Your task to perform on an android device: turn off location Image 0: 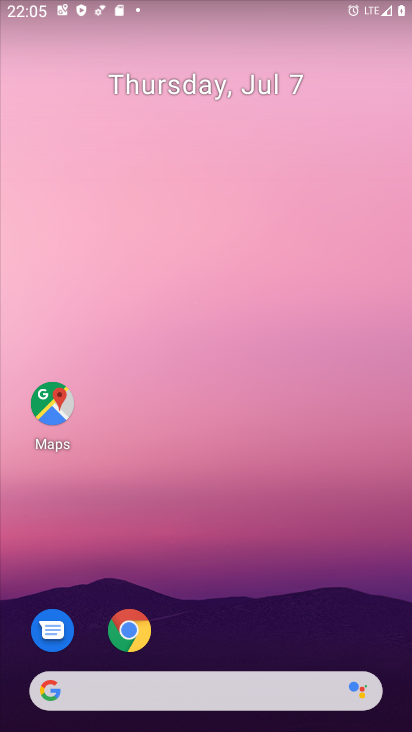
Step 0: drag from (202, 633) to (263, 144)
Your task to perform on an android device: turn off location Image 1: 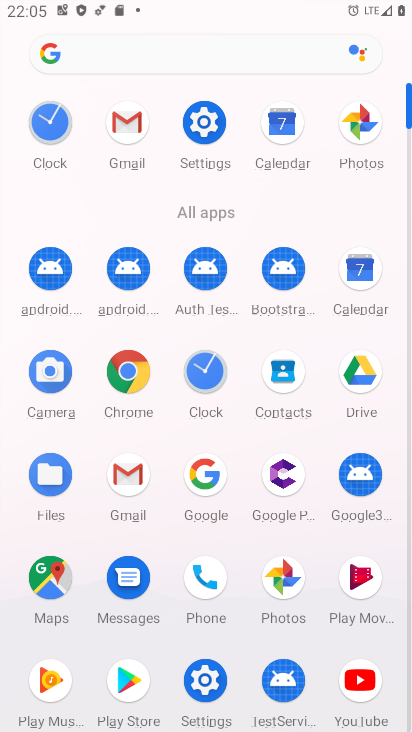
Step 1: click (205, 126)
Your task to perform on an android device: turn off location Image 2: 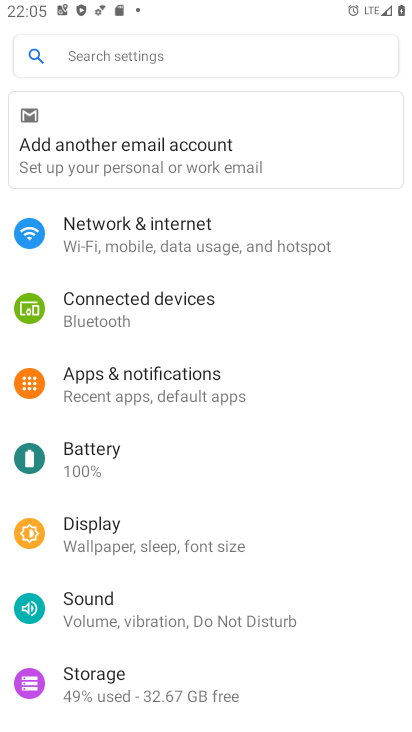
Step 2: drag from (161, 627) to (227, 226)
Your task to perform on an android device: turn off location Image 3: 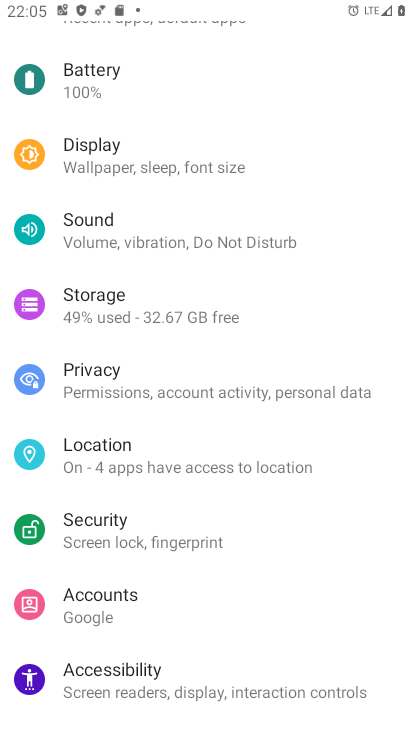
Step 3: click (114, 445)
Your task to perform on an android device: turn off location Image 4: 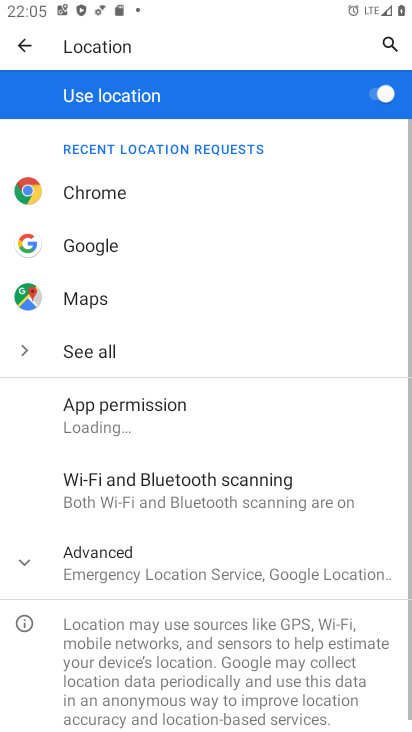
Step 4: drag from (227, 620) to (227, 355)
Your task to perform on an android device: turn off location Image 5: 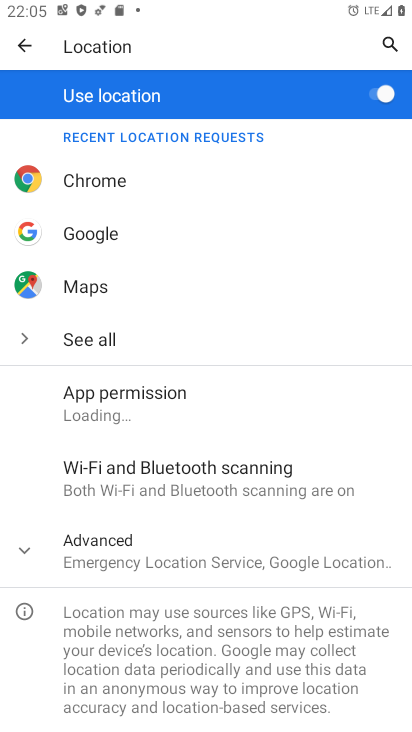
Step 5: drag from (196, 599) to (211, 290)
Your task to perform on an android device: turn off location Image 6: 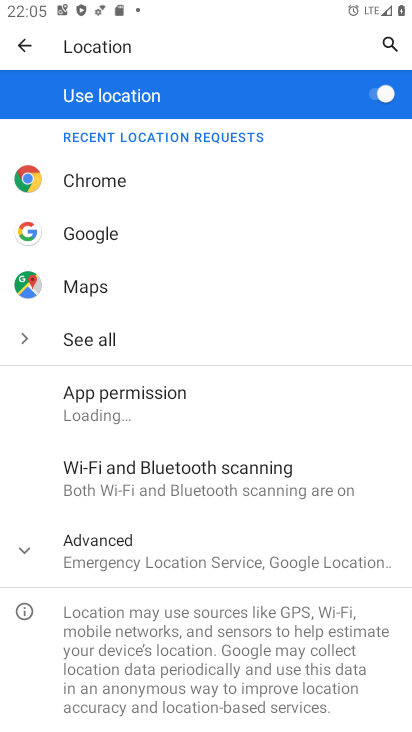
Step 6: click (153, 551)
Your task to perform on an android device: turn off location Image 7: 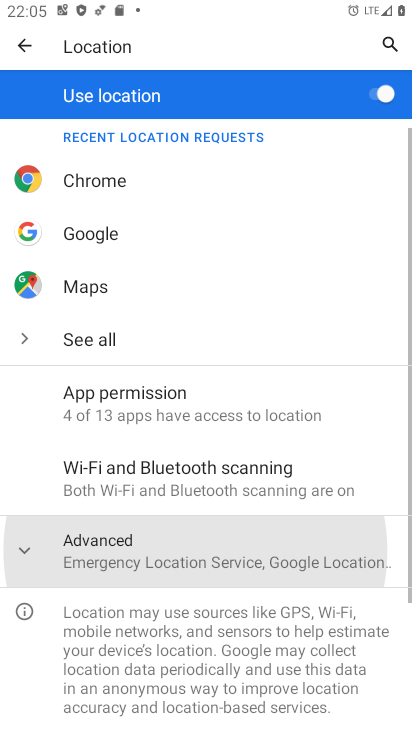
Step 7: click (153, 551)
Your task to perform on an android device: turn off location Image 8: 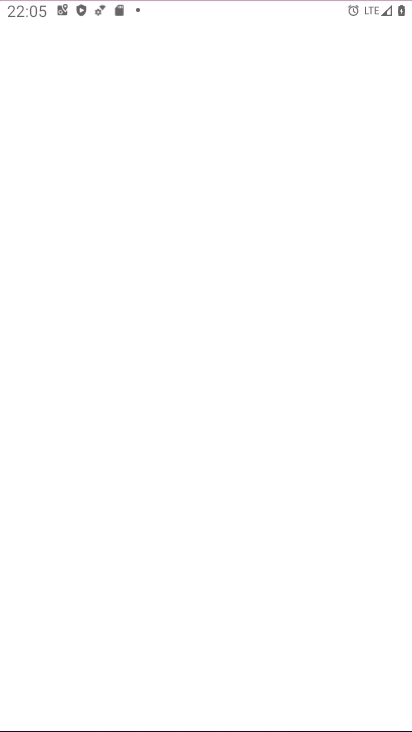
Step 8: drag from (160, 526) to (185, 189)
Your task to perform on an android device: turn off location Image 9: 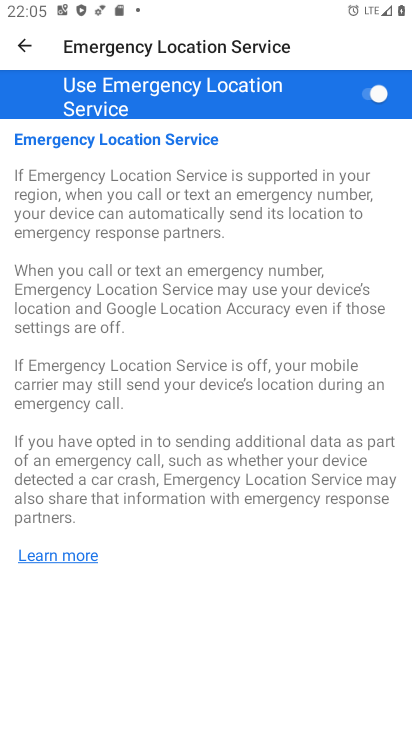
Step 9: drag from (225, 235) to (306, 679)
Your task to perform on an android device: turn off location Image 10: 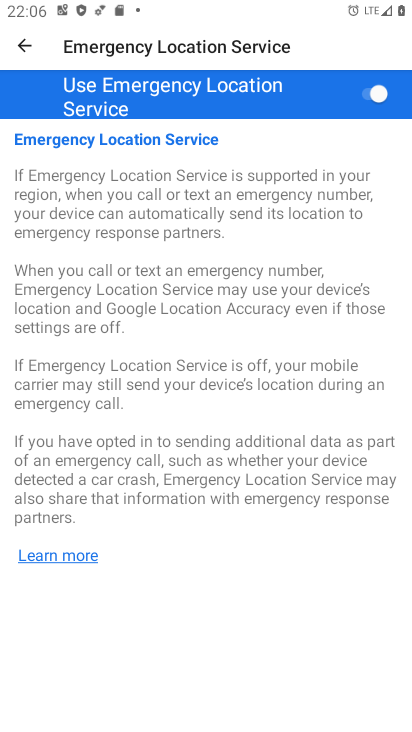
Step 10: click (21, 43)
Your task to perform on an android device: turn off location Image 11: 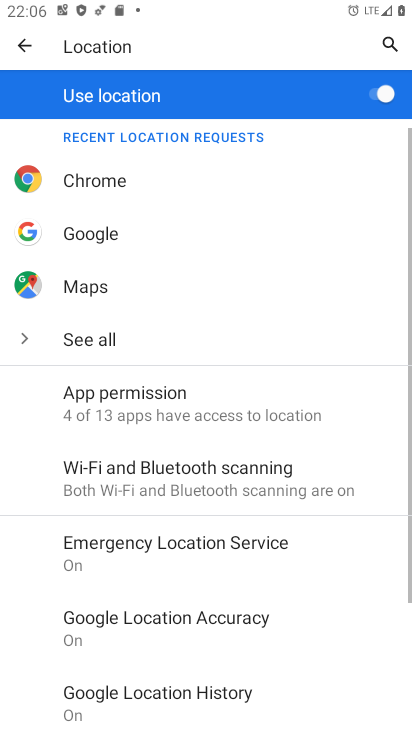
Step 11: click (384, 92)
Your task to perform on an android device: turn off location Image 12: 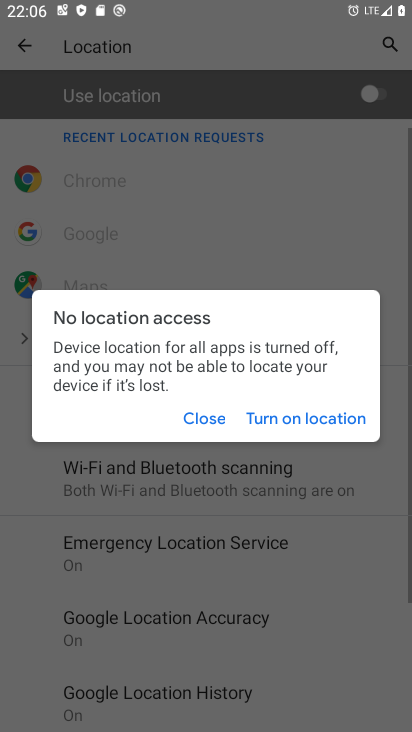
Step 12: task complete